Your task to perform on an android device: change the clock style Image 0: 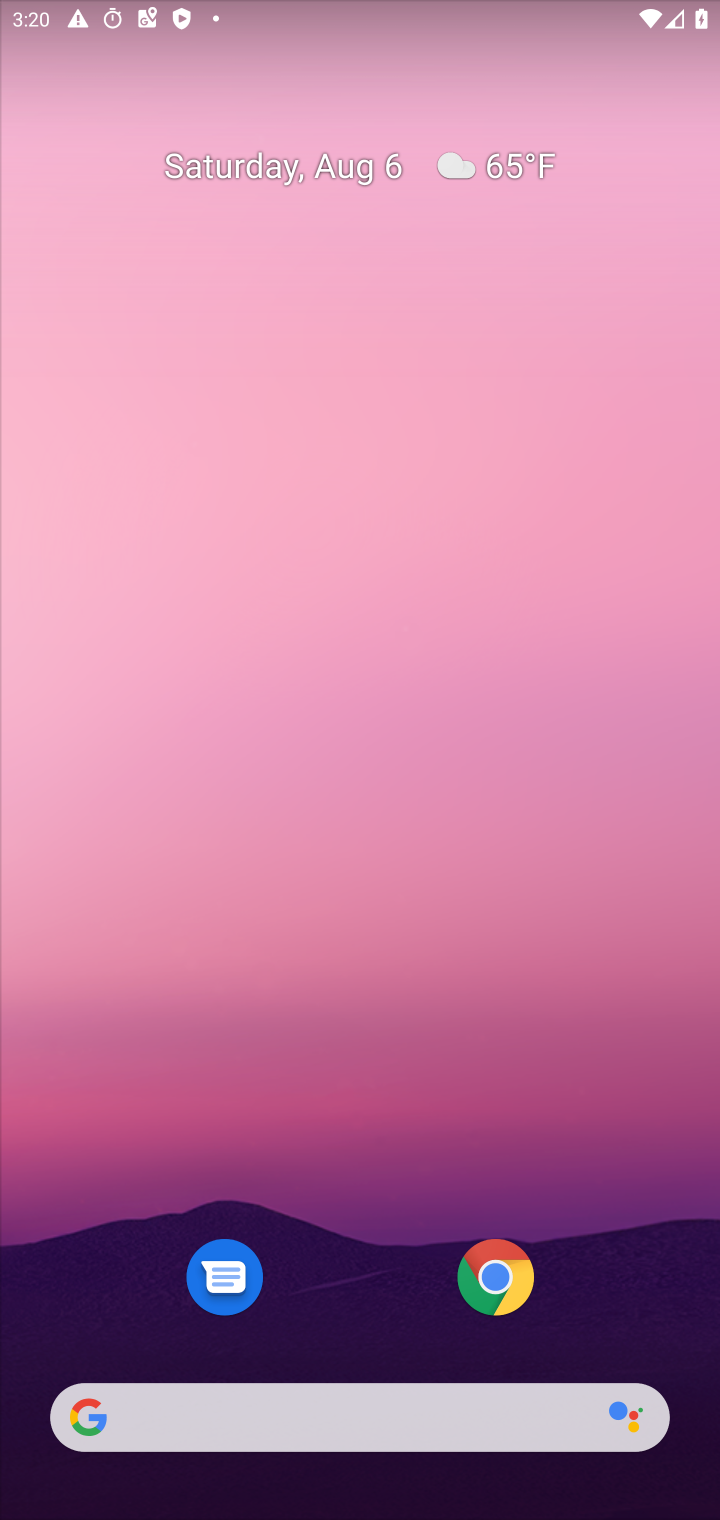
Step 0: drag from (442, 1414) to (603, 736)
Your task to perform on an android device: change the clock style Image 1: 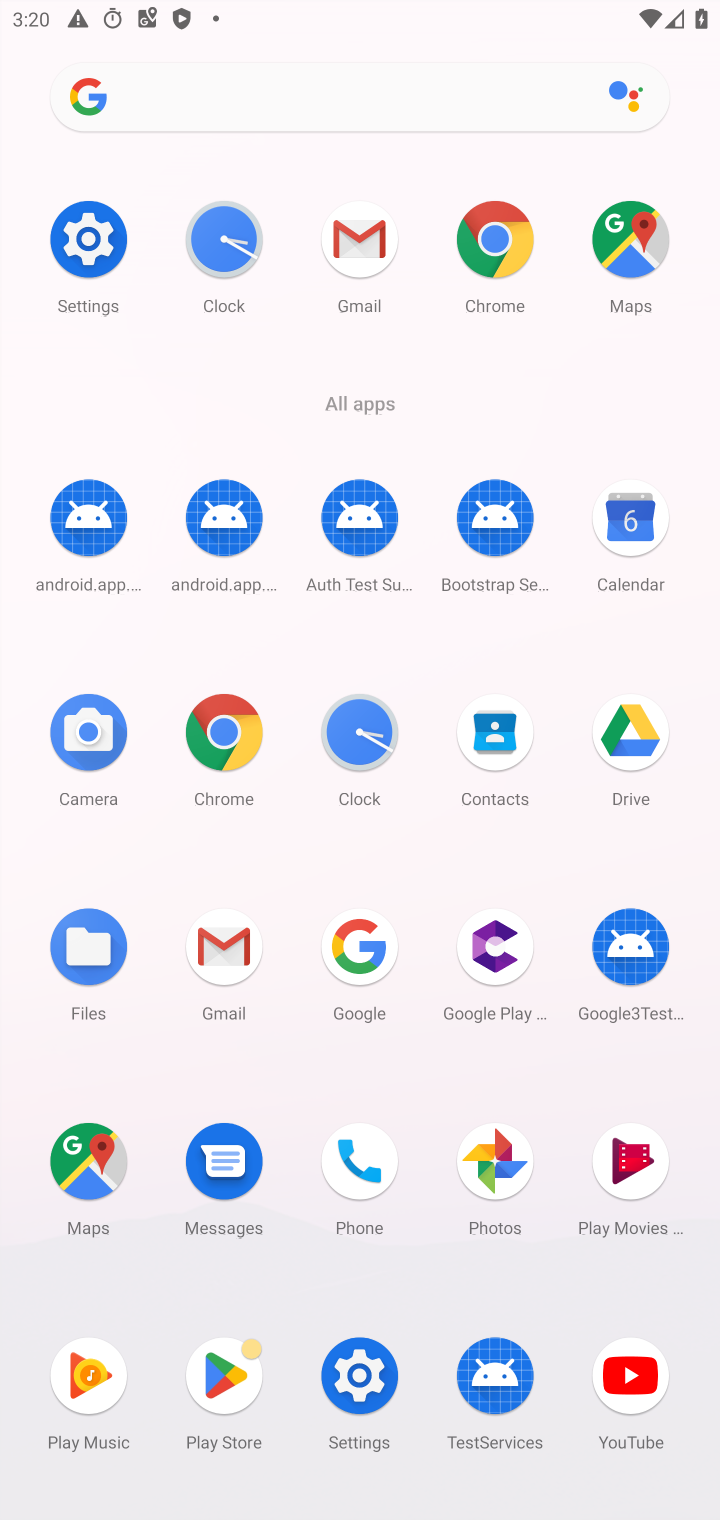
Step 1: click (359, 731)
Your task to perform on an android device: change the clock style Image 2: 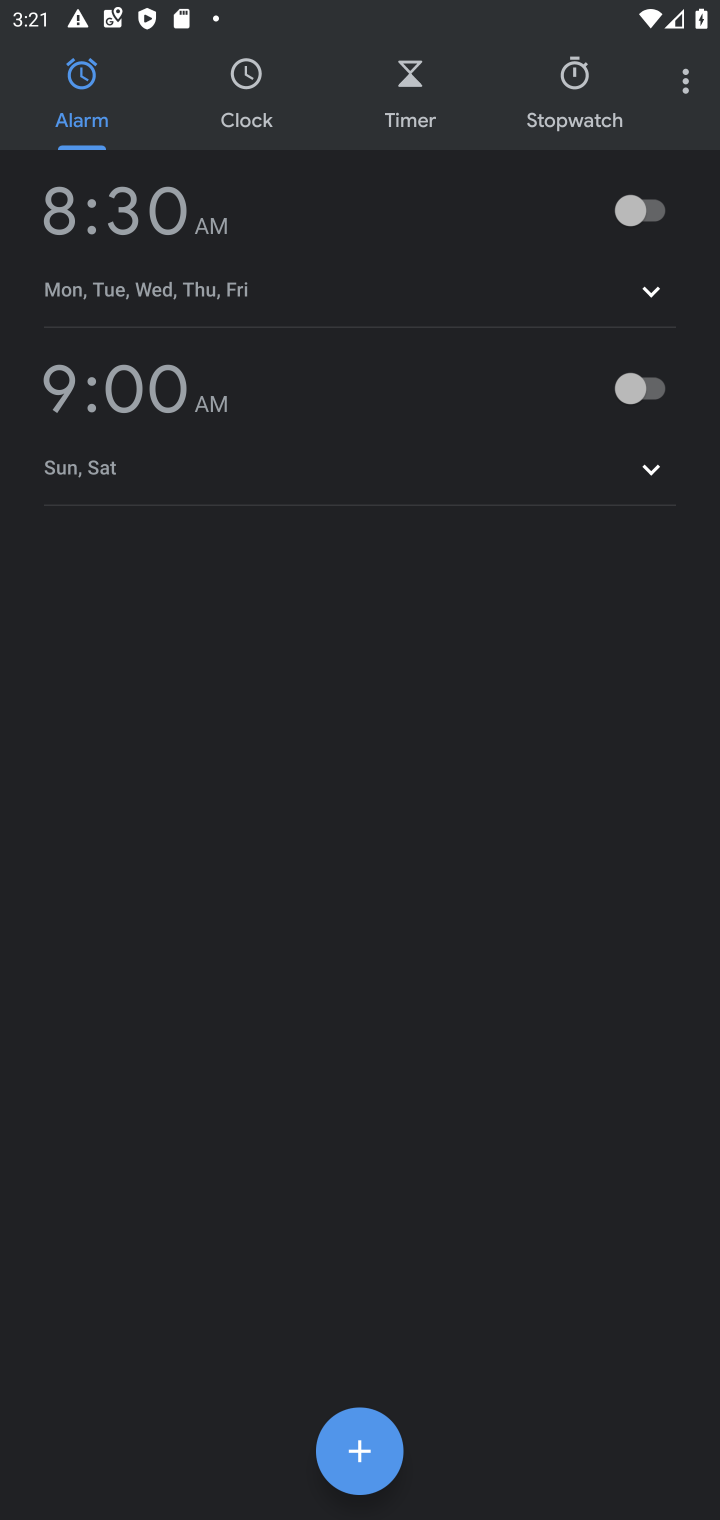
Step 2: click (695, 67)
Your task to perform on an android device: change the clock style Image 3: 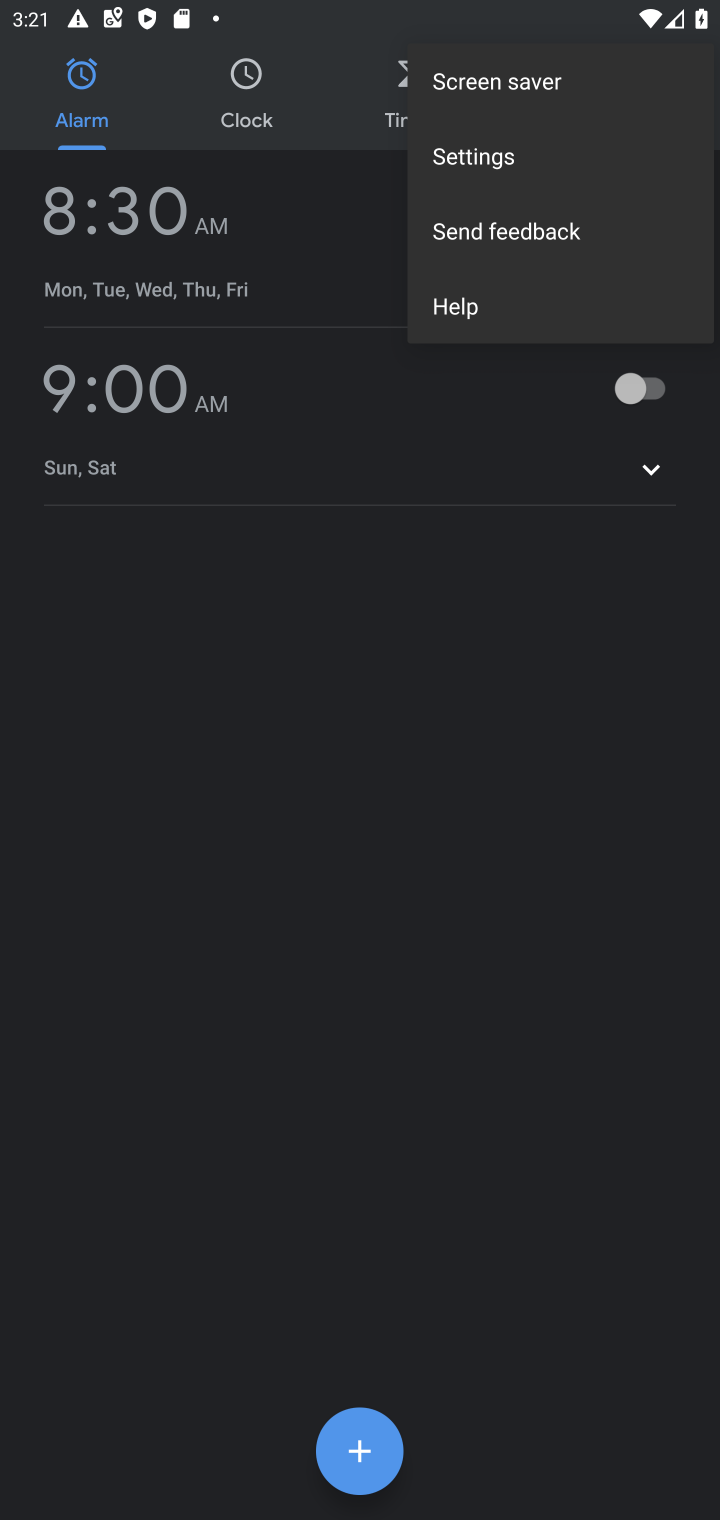
Step 3: click (499, 140)
Your task to perform on an android device: change the clock style Image 4: 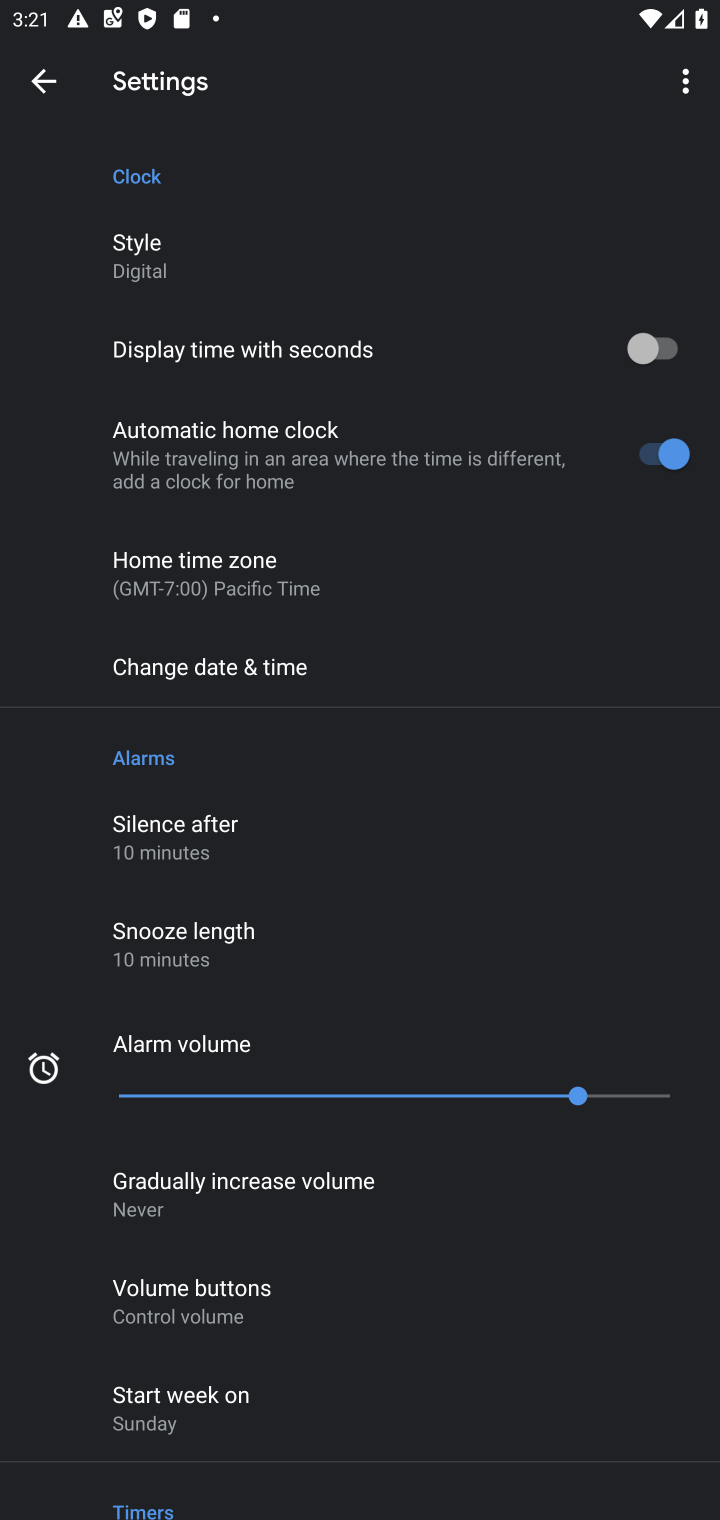
Step 4: click (200, 263)
Your task to perform on an android device: change the clock style Image 5: 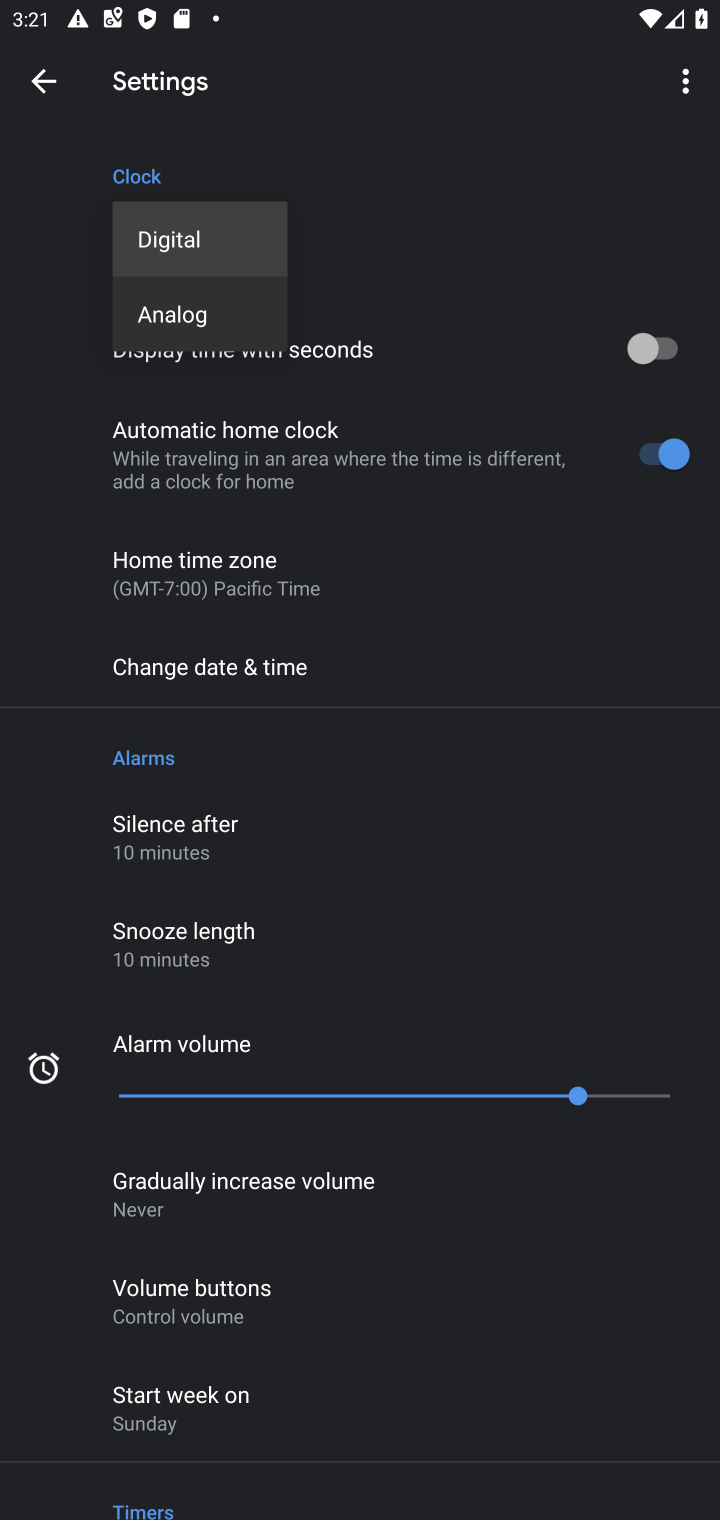
Step 5: click (168, 307)
Your task to perform on an android device: change the clock style Image 6: 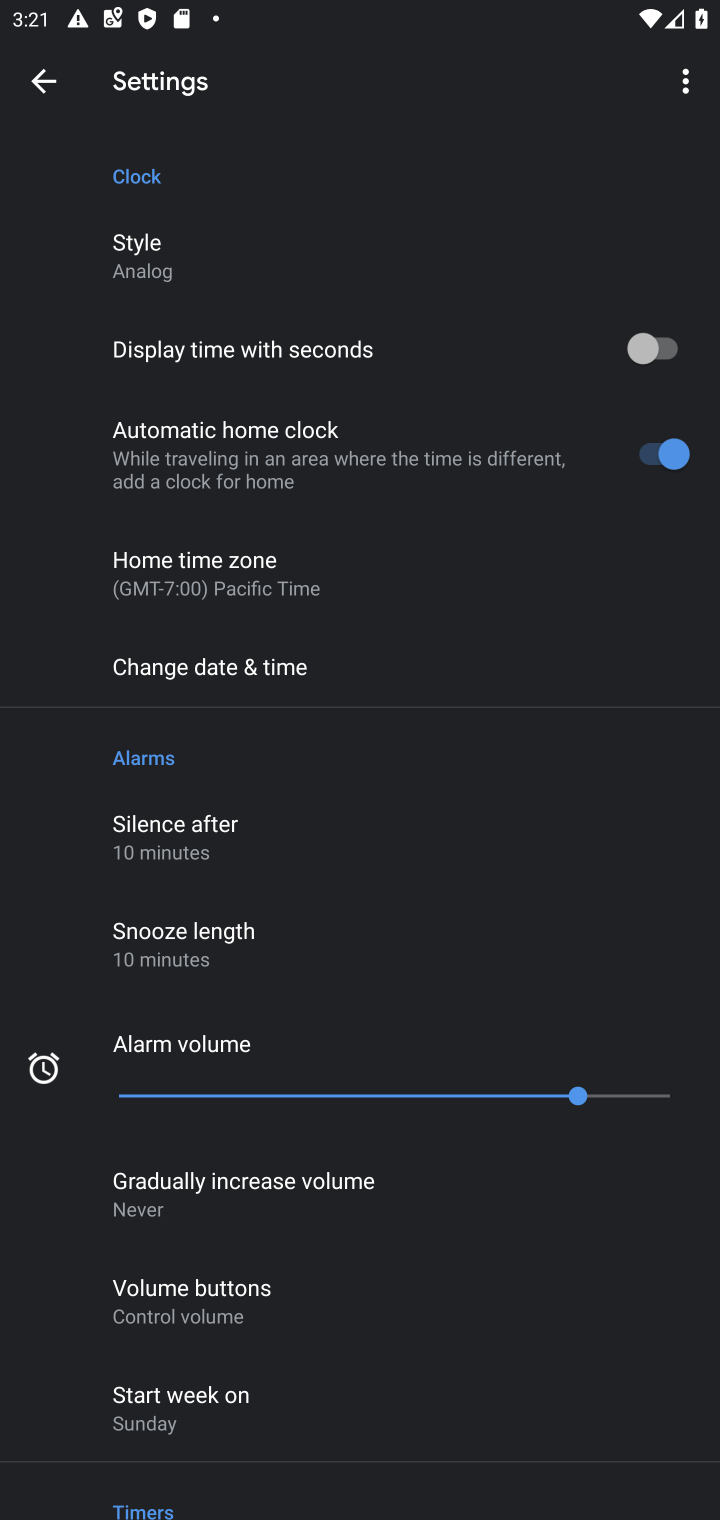
Step 6: task complete